Your task to perform on an android device: How do I get to the nearest electronics store? Image 0: 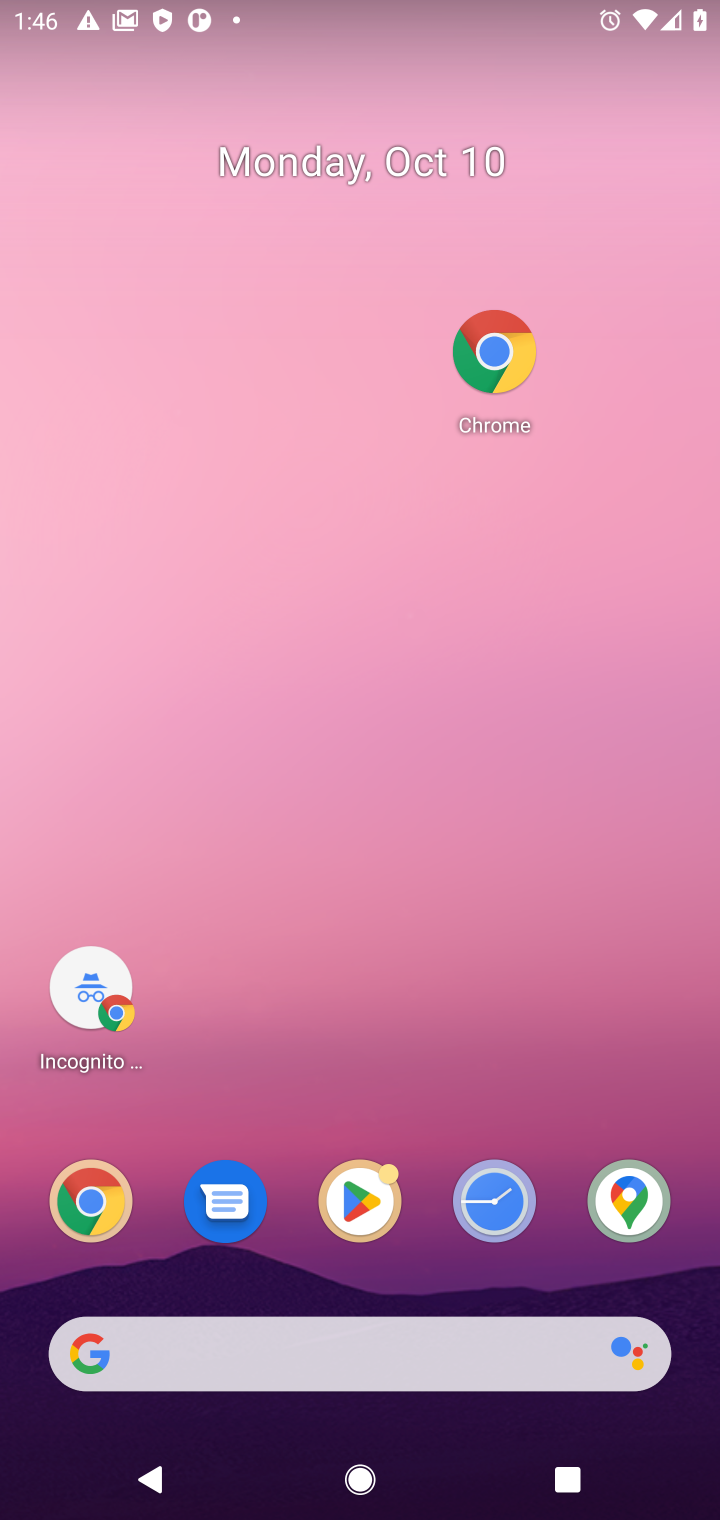
Step 0: click (498, 361)
Your task to perform on an android device: How do I get to the nearest electronics store? Image 1: 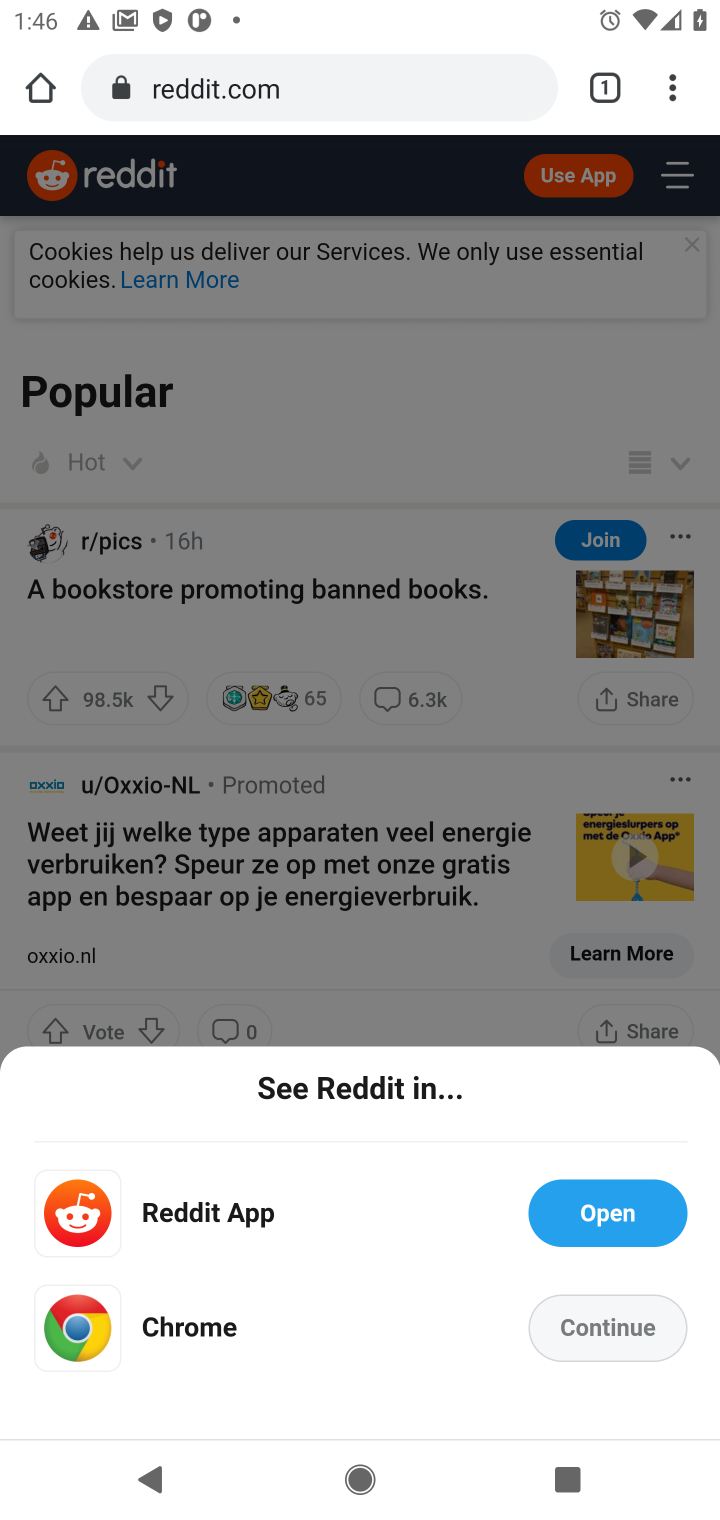
Step 1: click (338, 92)
Your task to perform on an android device: How do I get to the nearest electronics store? Image 2: 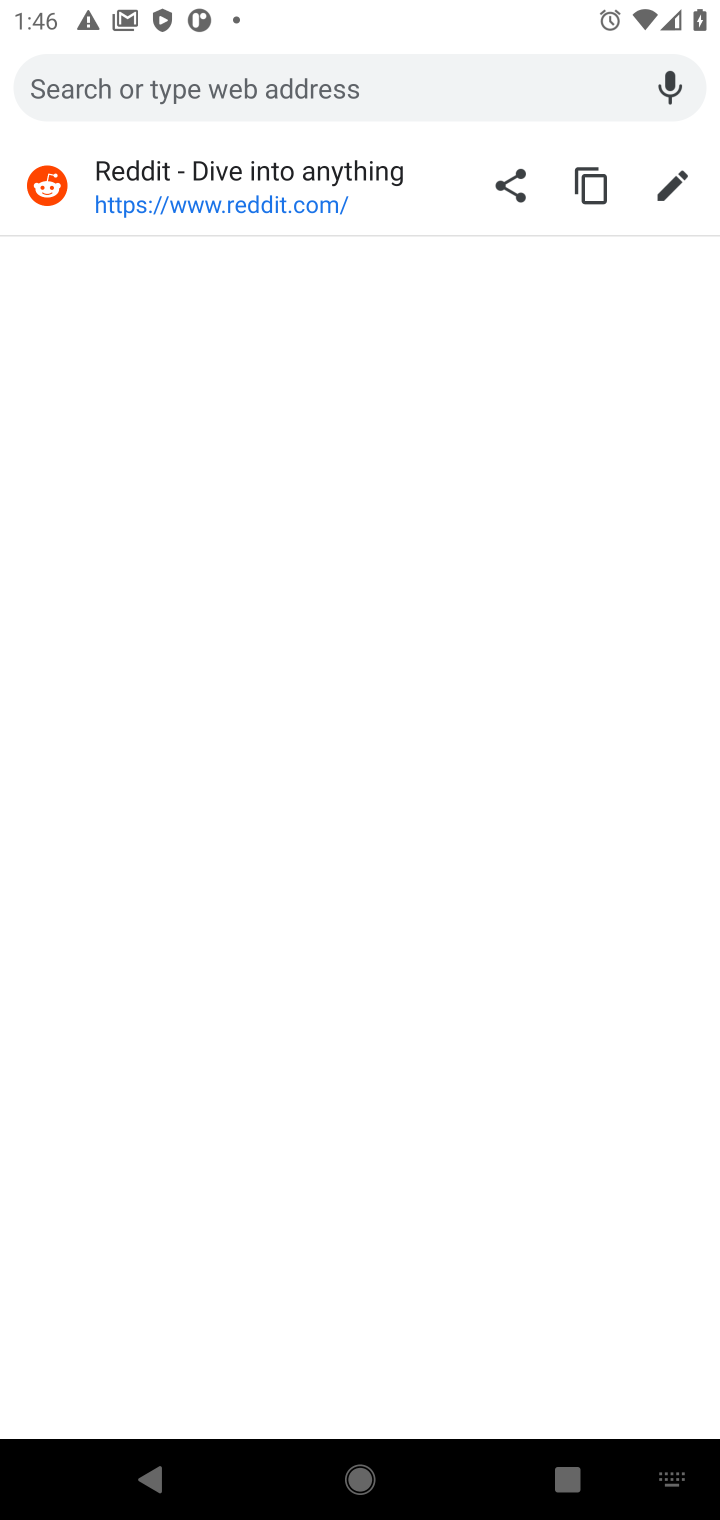
Step 2: type "nearest electronics store"
Your task to perform on an android device: How do I get to the nearest electronics store? Image 3: 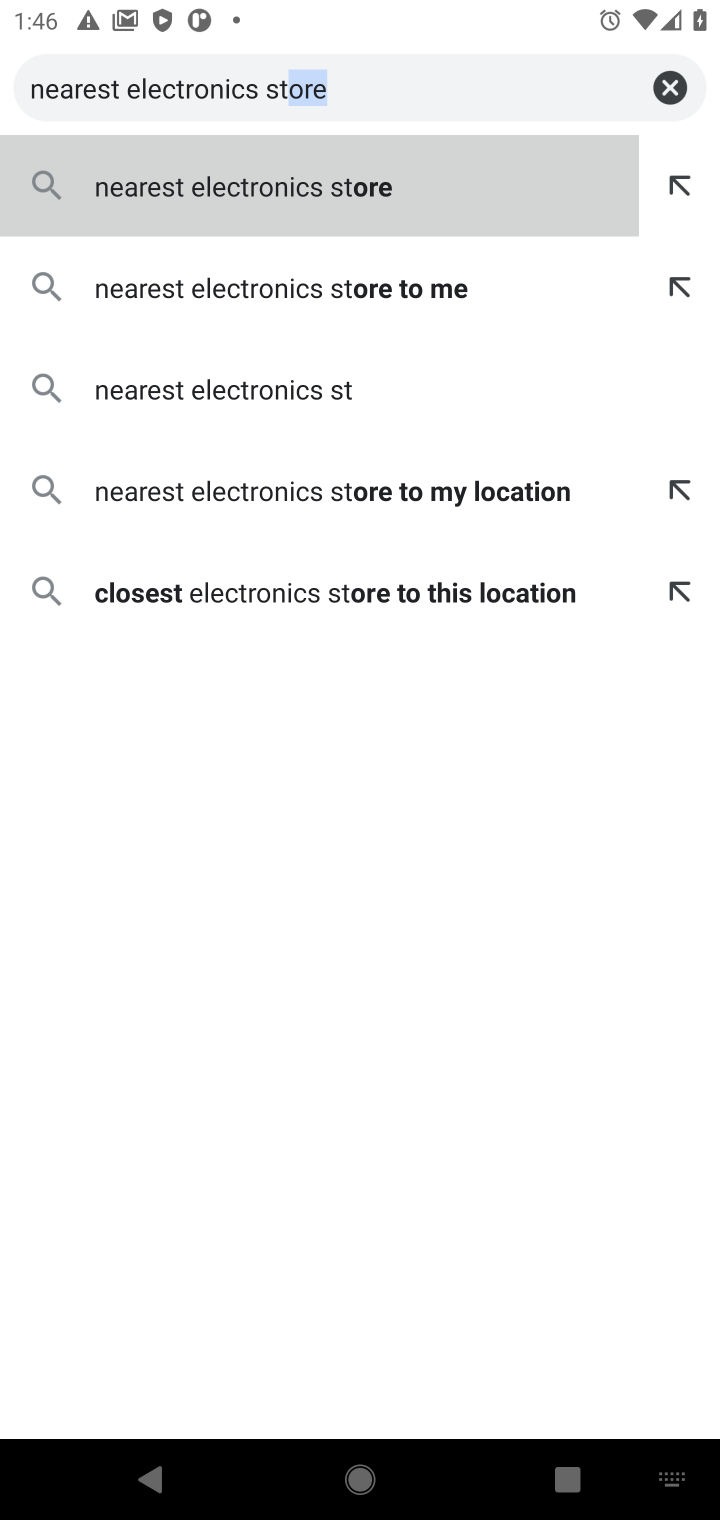
Step 3: click (224, 293)
Your task to perform on an android device: How do I get to the nearest electronics store? Image 4: 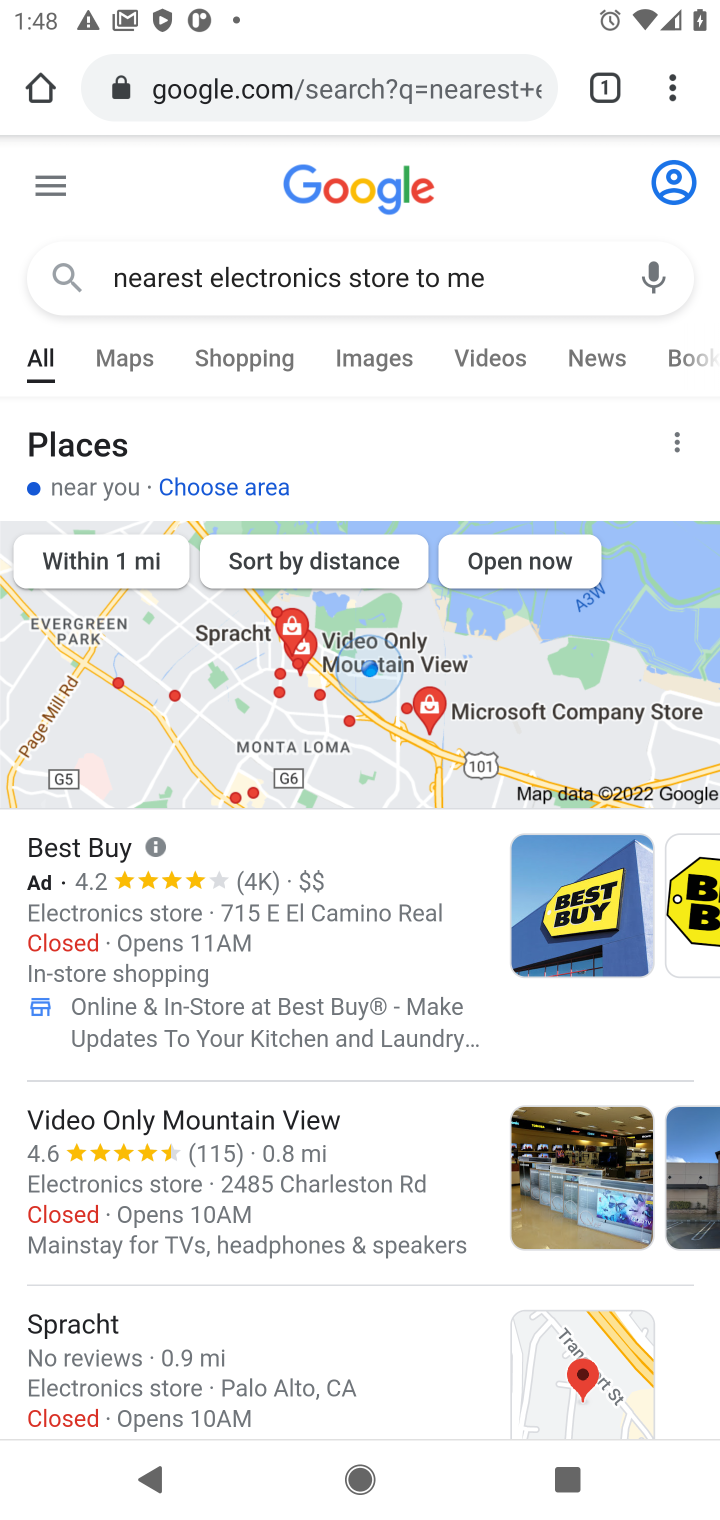
Step 4: click (94, 363)
Your task to perform on an android device: How do I get to the nearest electronics store? Image 5: 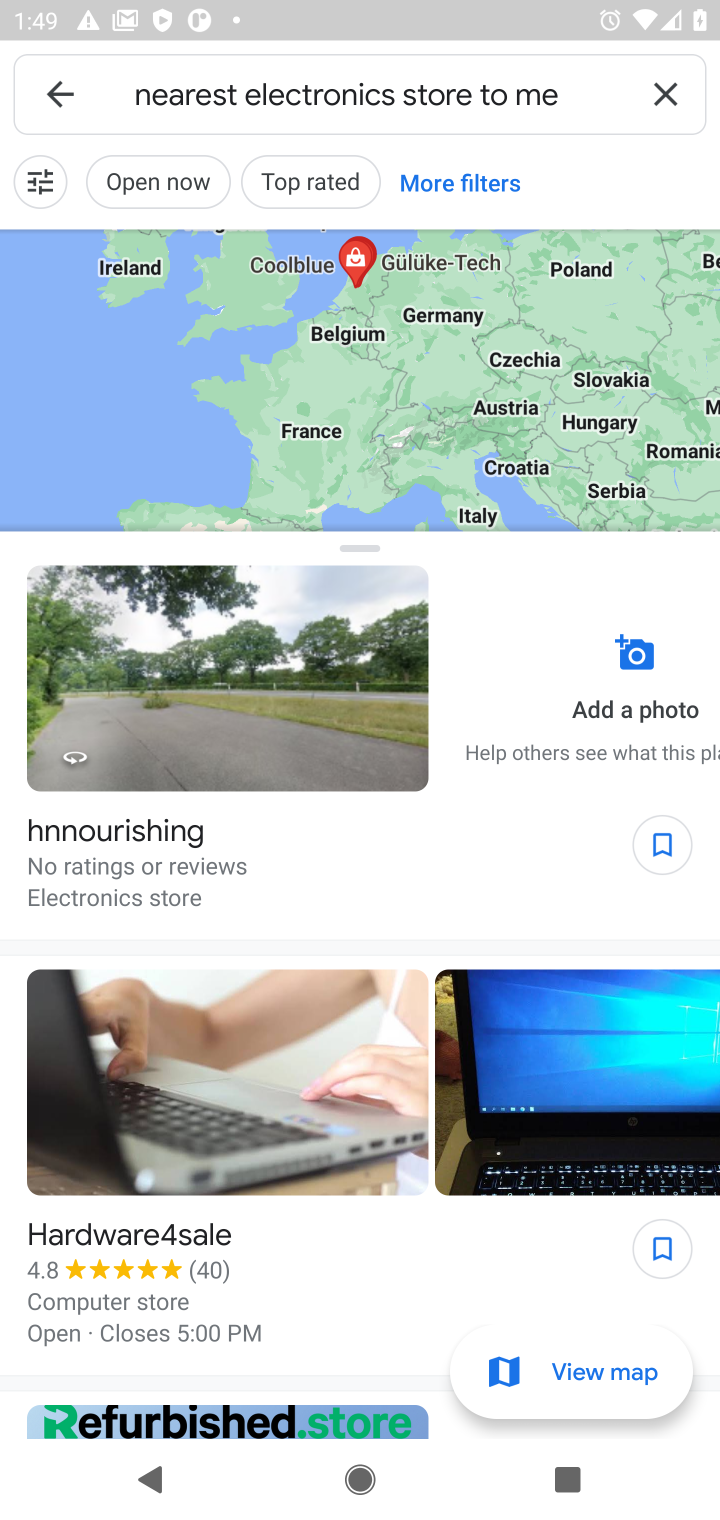
Step 5: click (317, 95)
Your task to perform on an android device: How do I get to the nearest electronics store? Image 6: 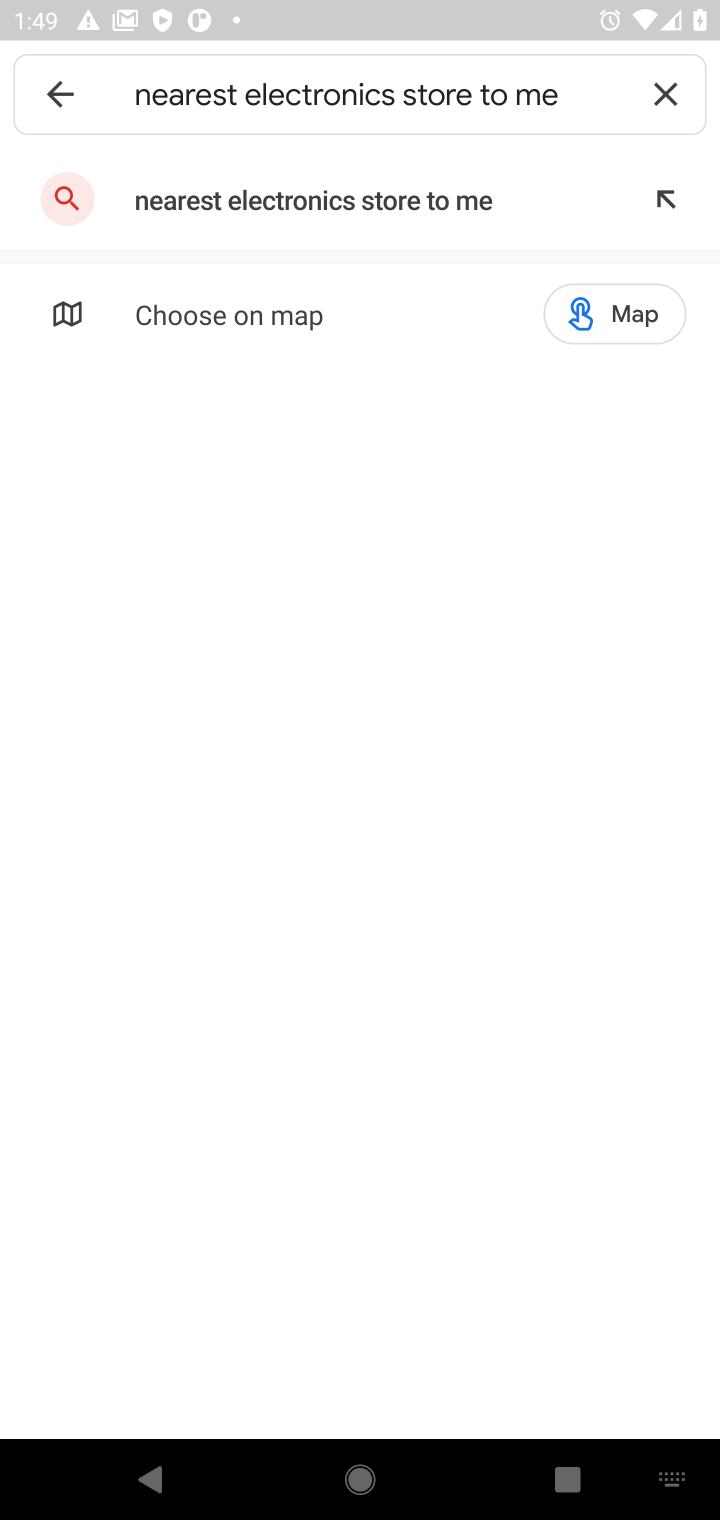
Step 6: click (293, 196)
Your task to perform on an android device: How do I get to the nearest electronics store? Image 7: 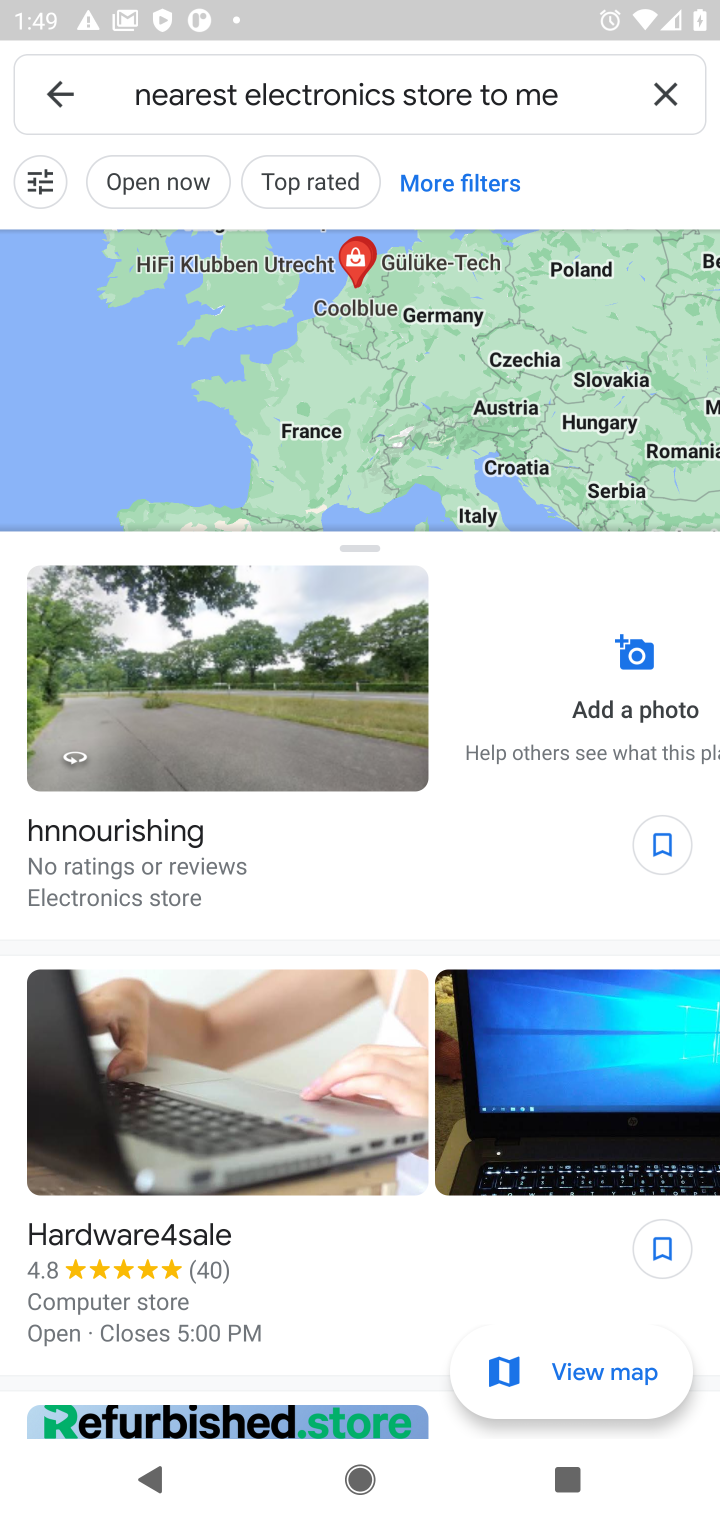
Step 7: click (591, 1385)
Your task to perform on an android device: How do I get to the nearest electronics store? Image 8: 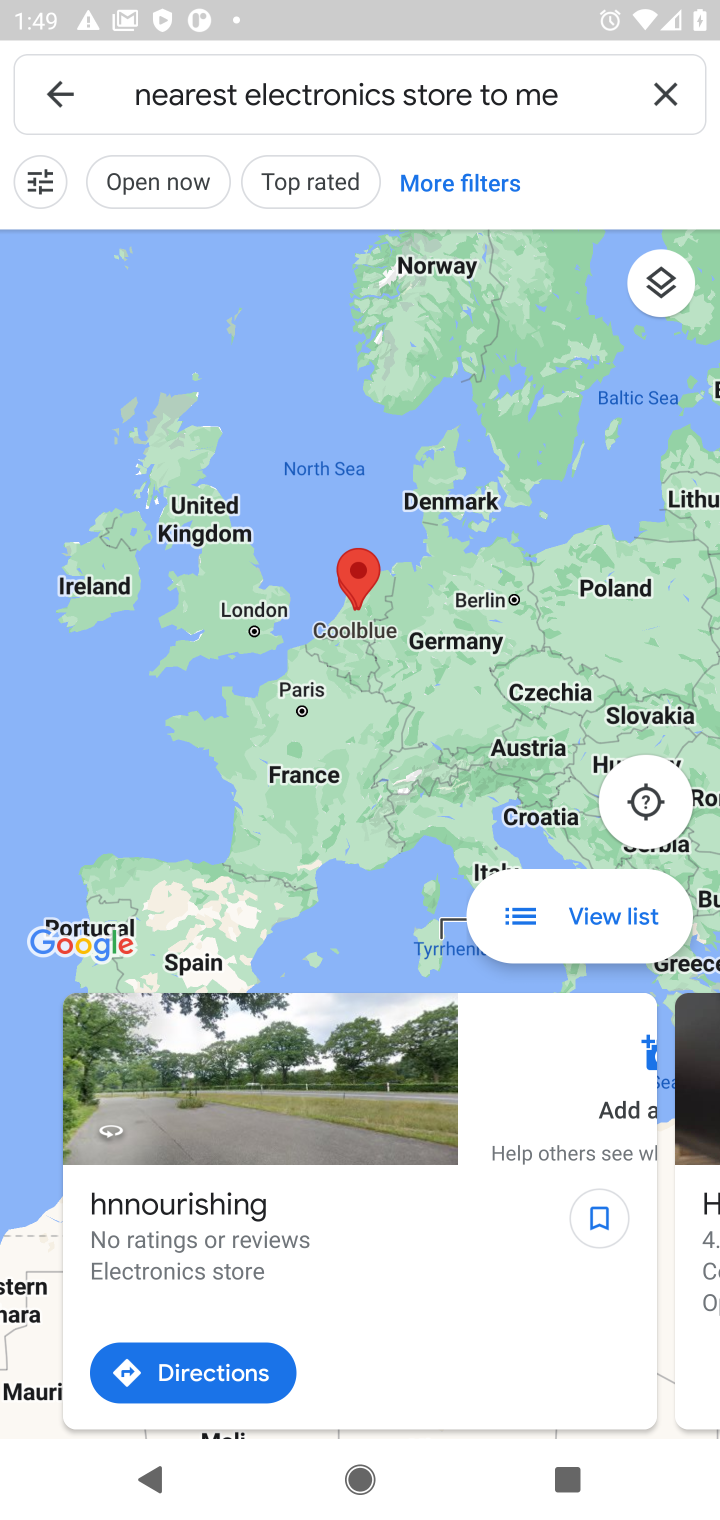
Step 8: click (225, 1366)
Your task to perform on an android device: How do I get to the nearest electronics store? Image 9: 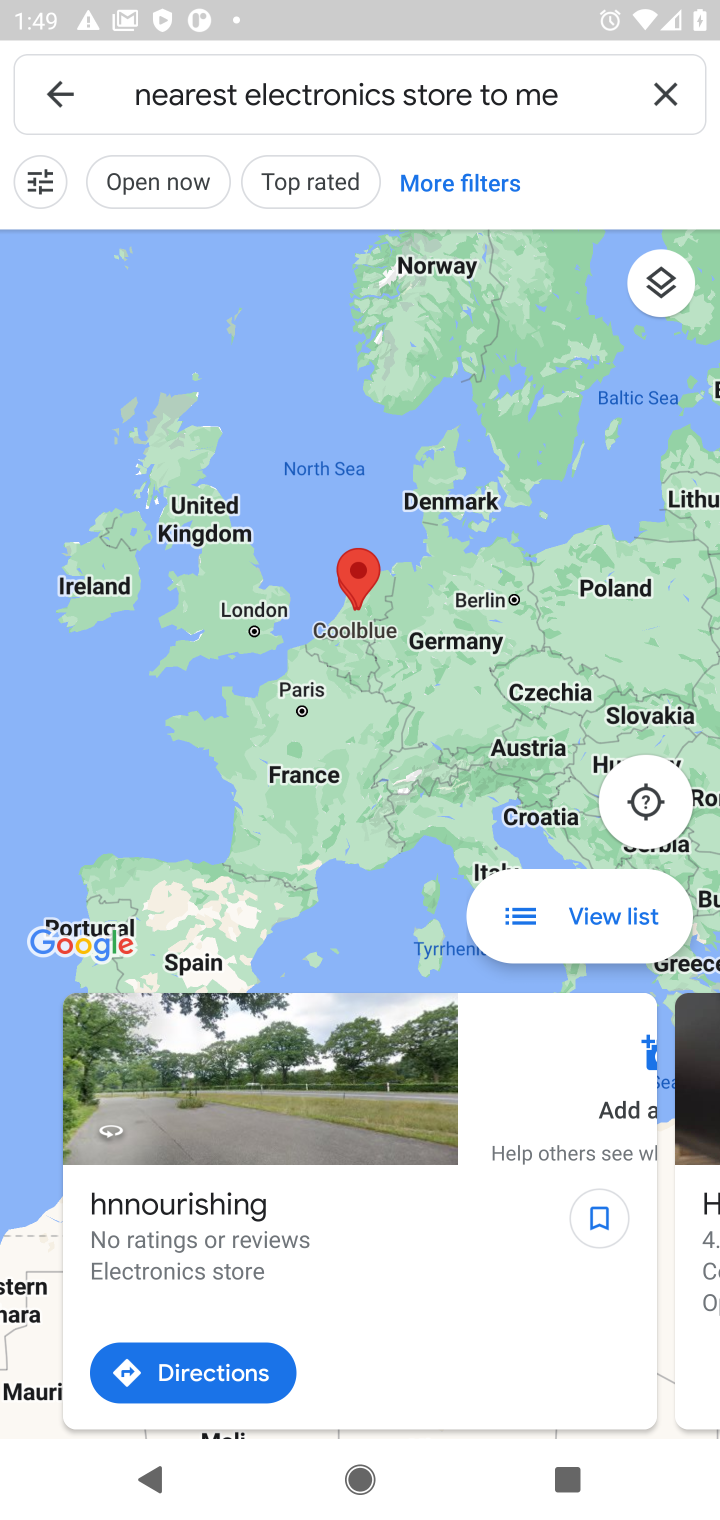
Step 9: click (188, 1380)
Your task to perform on an android device: How do I get to the nearest electronics store? Image 10: 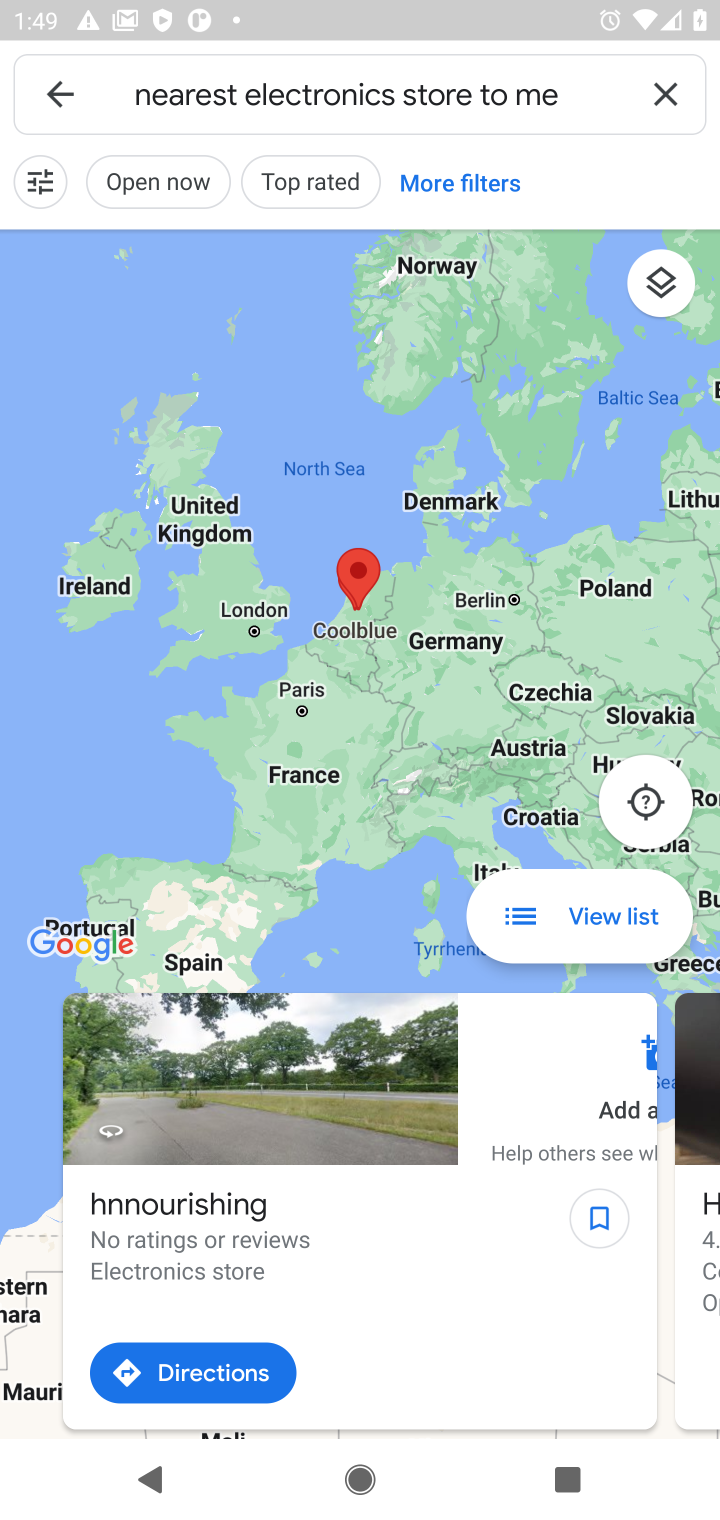
Step 10: click (236, 1382)
Your task to perform on an android device: How do I get to the nearest electronics store? Image 11: 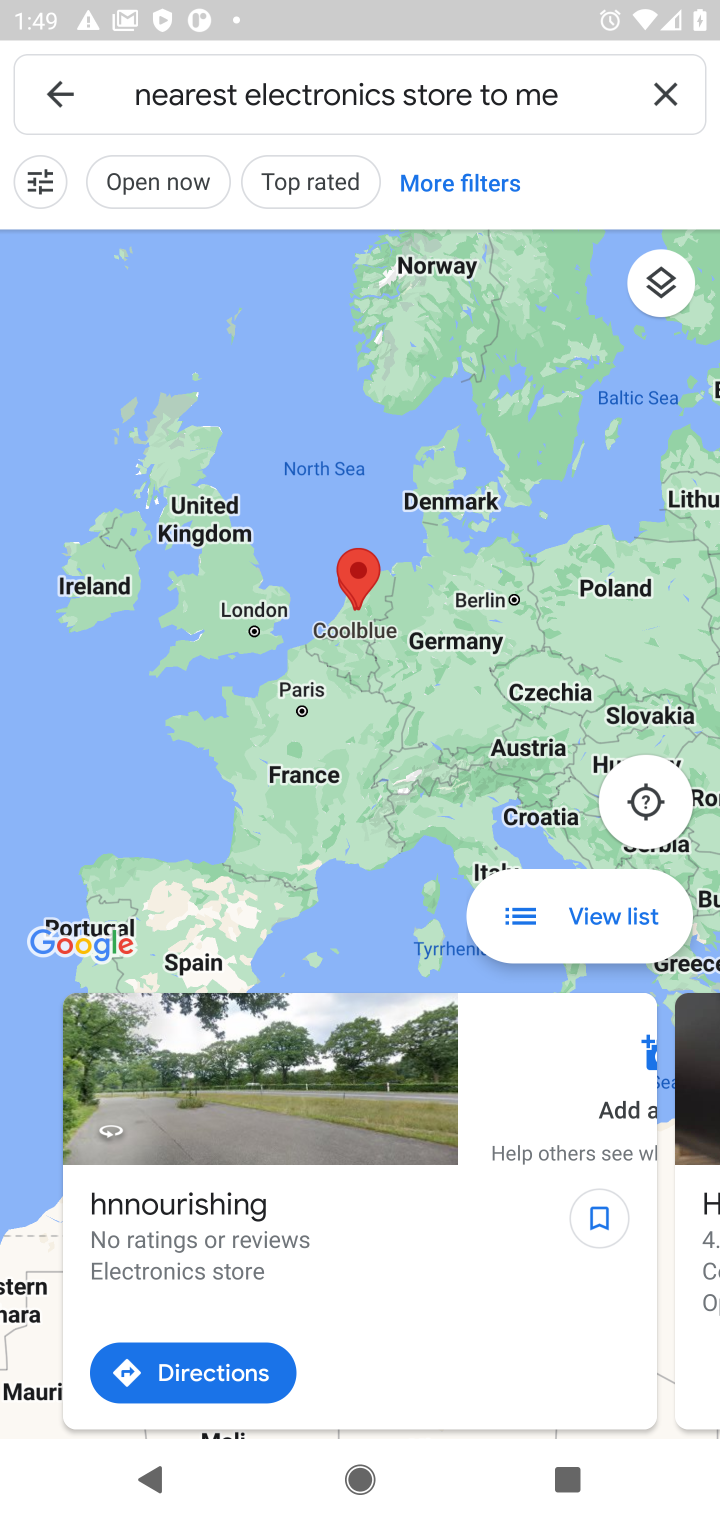
Step 11: task complete